Your task to perform on an android device: Open the stopwatch Image 0: 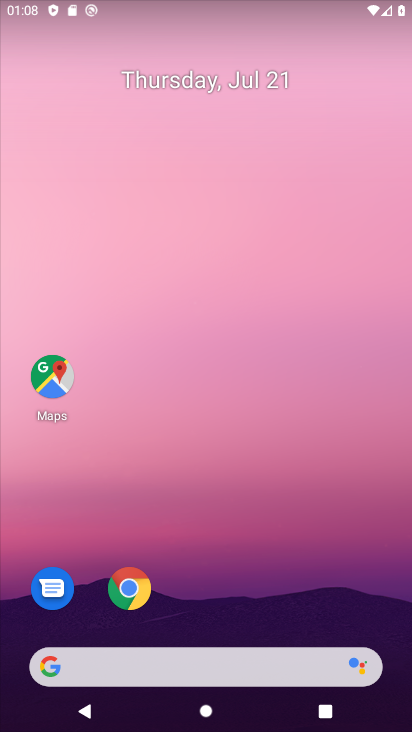
Step 0: drag from (289, 589) to (278, 1)
Your task to perform on an android device: Open the stopwatch Image 1: 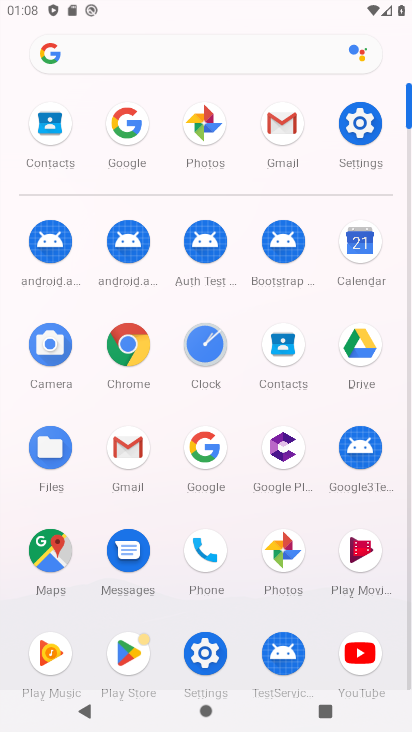
Step 1: click (217, 356)
Your task to perform on an android device: Open the stopwatch Image 2: 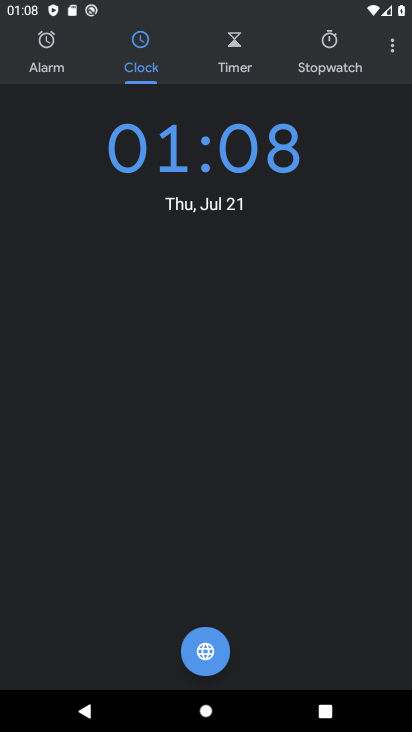
Step 2: click (346, 40)
Your task to perform on an android device: Open the stopwatch Image 3: 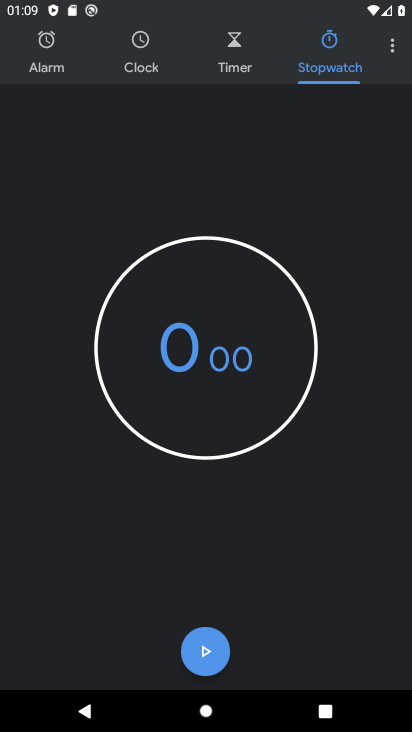
Step 3: task complete